Your task to perform on an android device: Open the map Image 0: 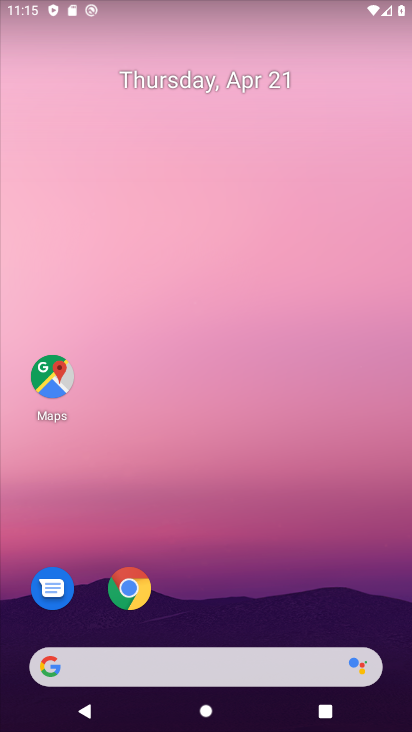
Step 0: click (51, 372)
Your task to perform on an android device: Open the map Image 1: 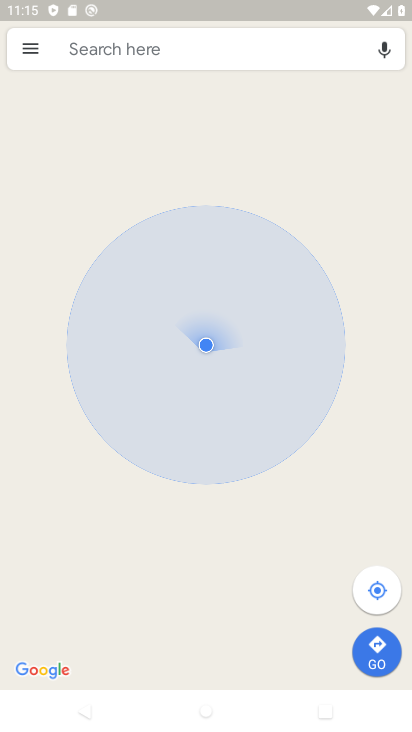
Step 1: task complete